Your task to perform on an android device: check the backup settings in the google photos Image 0: 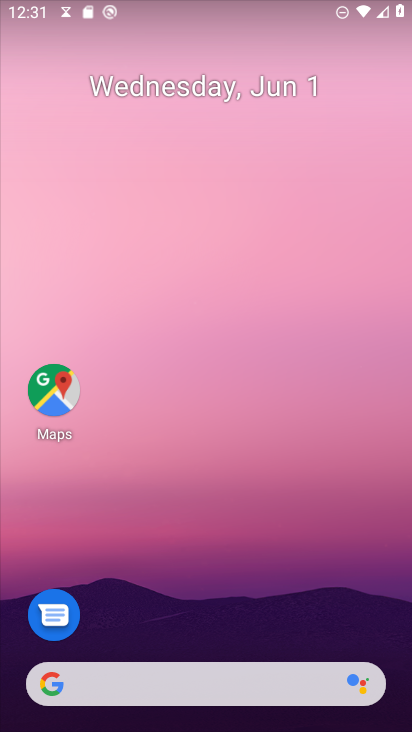
Step 0: drag from (293, 627) to (335, 58)
Your task to perform on an android device: check the backup settings in the google photos Image 1: 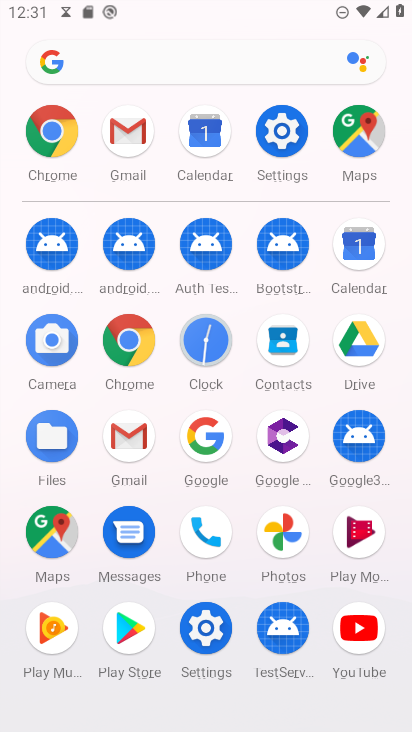
Step 1: click (276, 532)
Your task to perform on an android device: check the backup settings in the google photos Image 2: 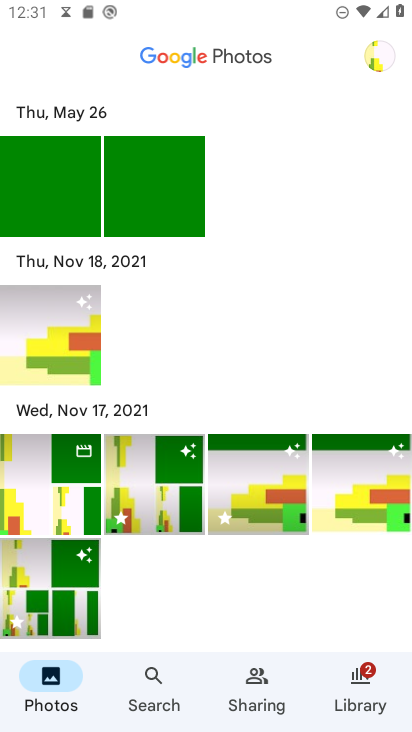
Step 2: click (387, 55)
Your task to perform on an android device: check the backup settings in the google photos Image 3: 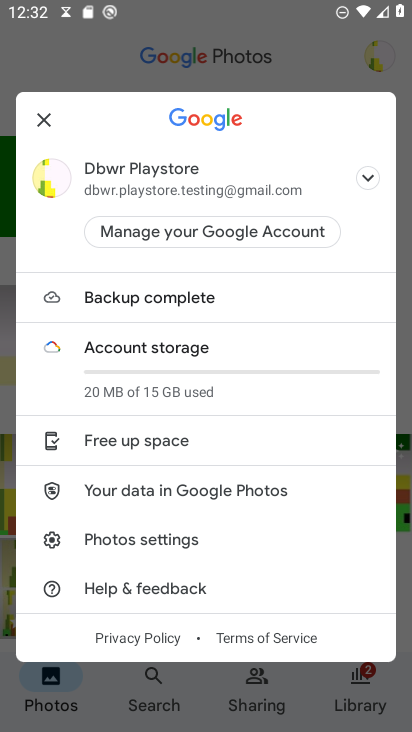
Step 3: click (155, 541)
Your task to perform on an android device: check the backup settings in the google photos Image 4: 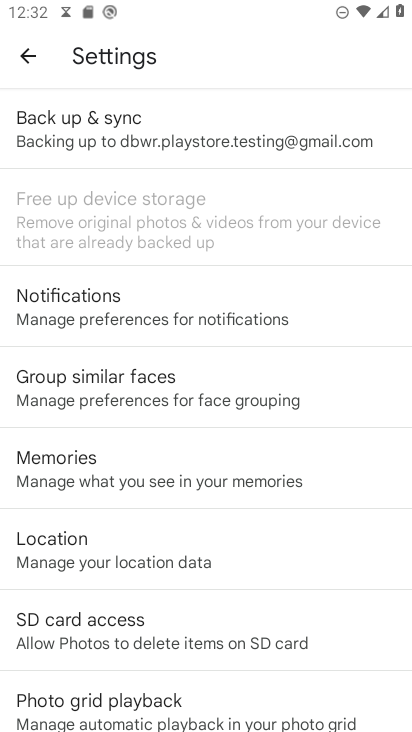
Step 4: drag from (239, 547) to (341, 266)
Your task to perform on an android device: check the backup settings in the google photos Image 5: 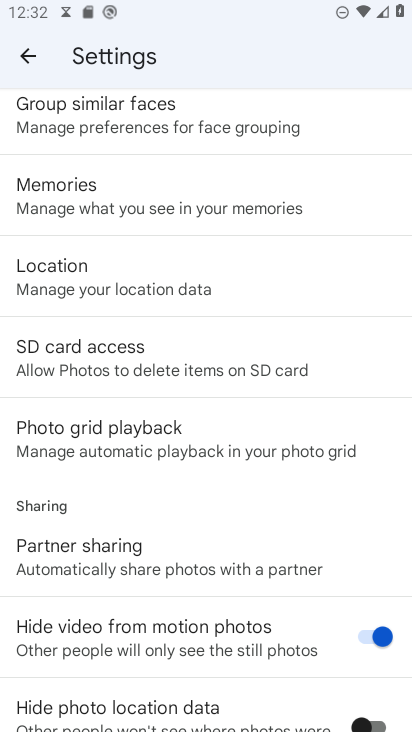
Step 5: drag from (259, 476) to (301, 203)
Your task to perform on an android device: check the backup settings in the google photos Image 6: 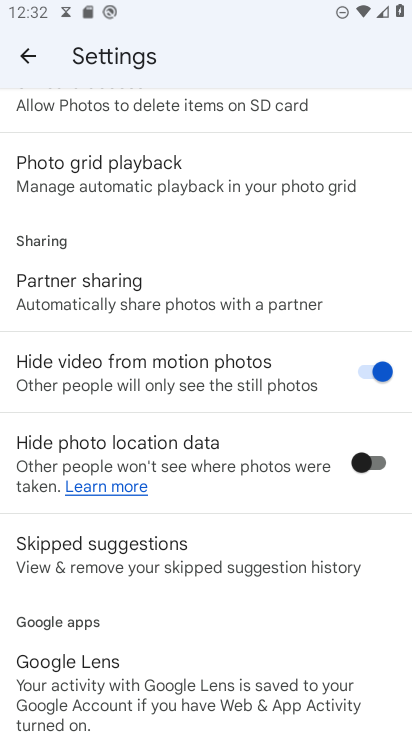
Step 6: drag from (175, 634) to (239, 262)
Your task to perform on an android device: check the backup settings in the google photos Image 7: 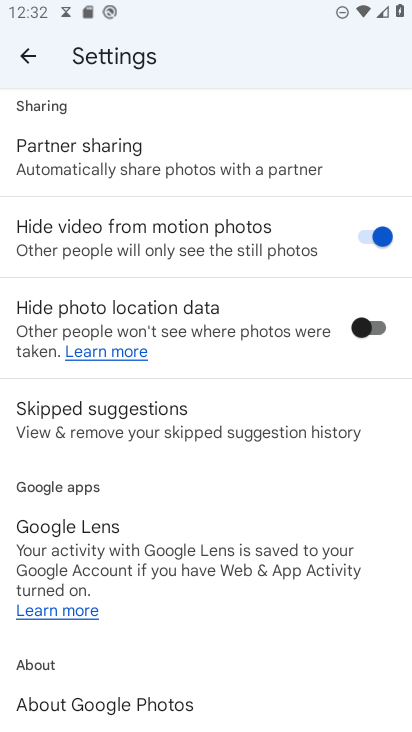
Step 7: drag from (199, 606) to (251, 354)
Your task to perform on an android device: check the backup settings in the google photos Image 8: 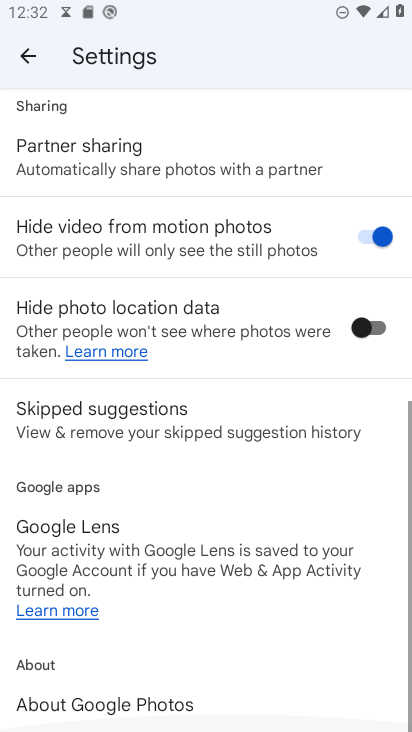
Step 8: drag from (266, 276) to (236, 518)
Your task to perform on an android device: check the backup settings in the google photos Image 9: 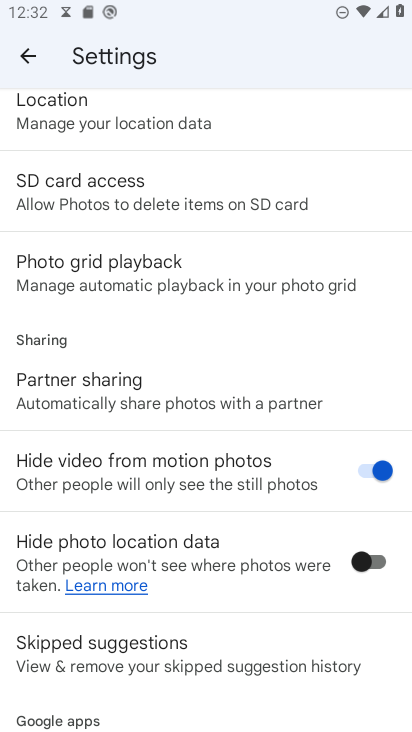
Step 9: drag from (265, 221) to (227, 466)
Your task to perform on an android device: check the backup settings in the google photos Image 10: 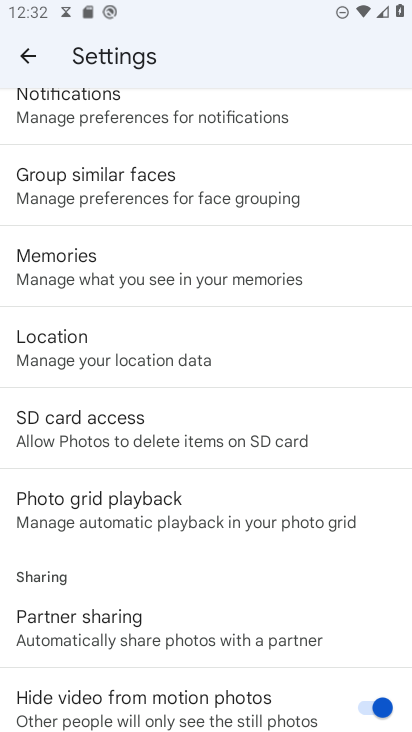
Step 10: drag from (279, 149) to (214, 423)
Your task to perform on an android device: check the backup settings in the google photos Image 11: 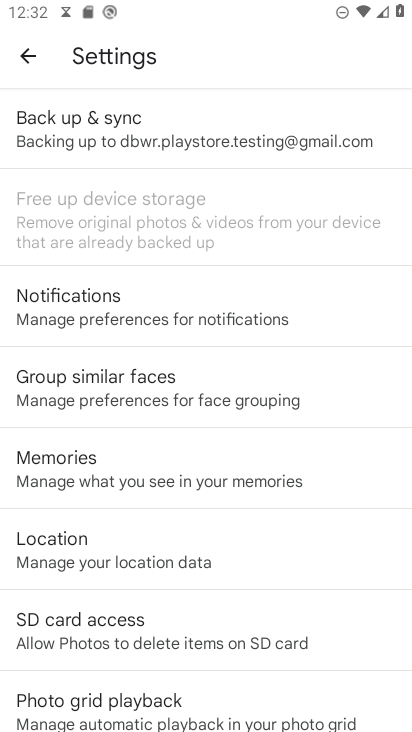
Step 11: click (235, 178)
Your task to perform on an android device: check the backup settings in the google photos Image 12: 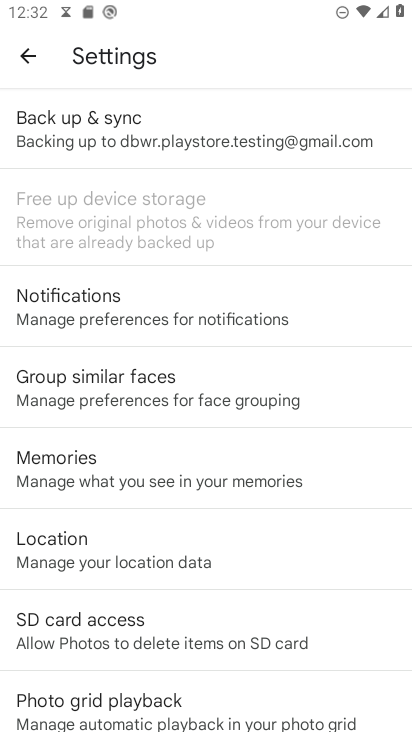
Step 12: click (235, 171)
Your task to perform on an android device: check the backup settings in the google photos Image 13: 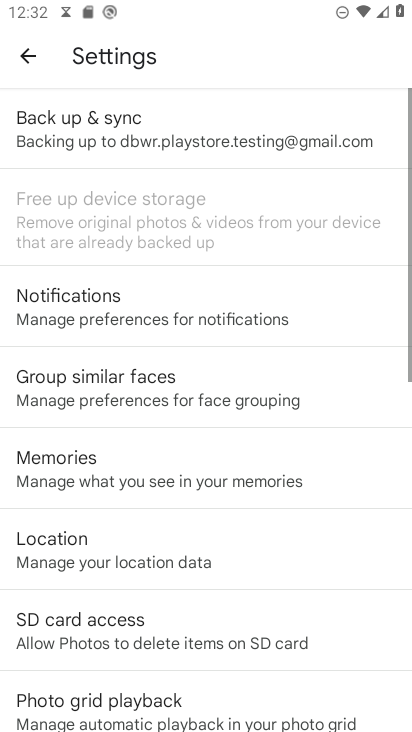
Step 13: click (232, 152)
Your task to perform on an android device: check the backup settings in the google photos Image 14: 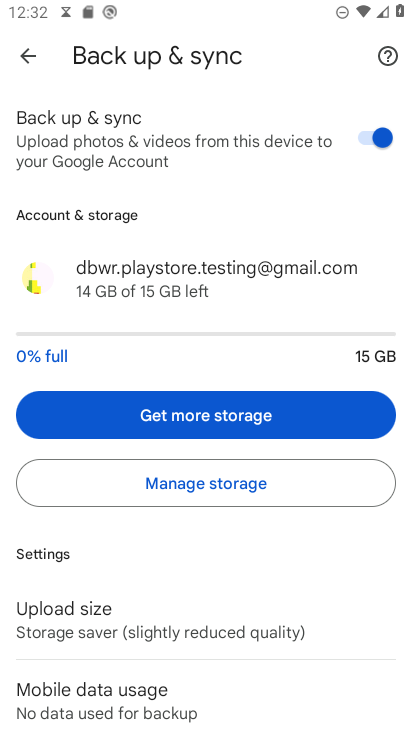
Step 14: task complete